Your task to perform on an android device: see sites visited before in the chrome app Image 0: 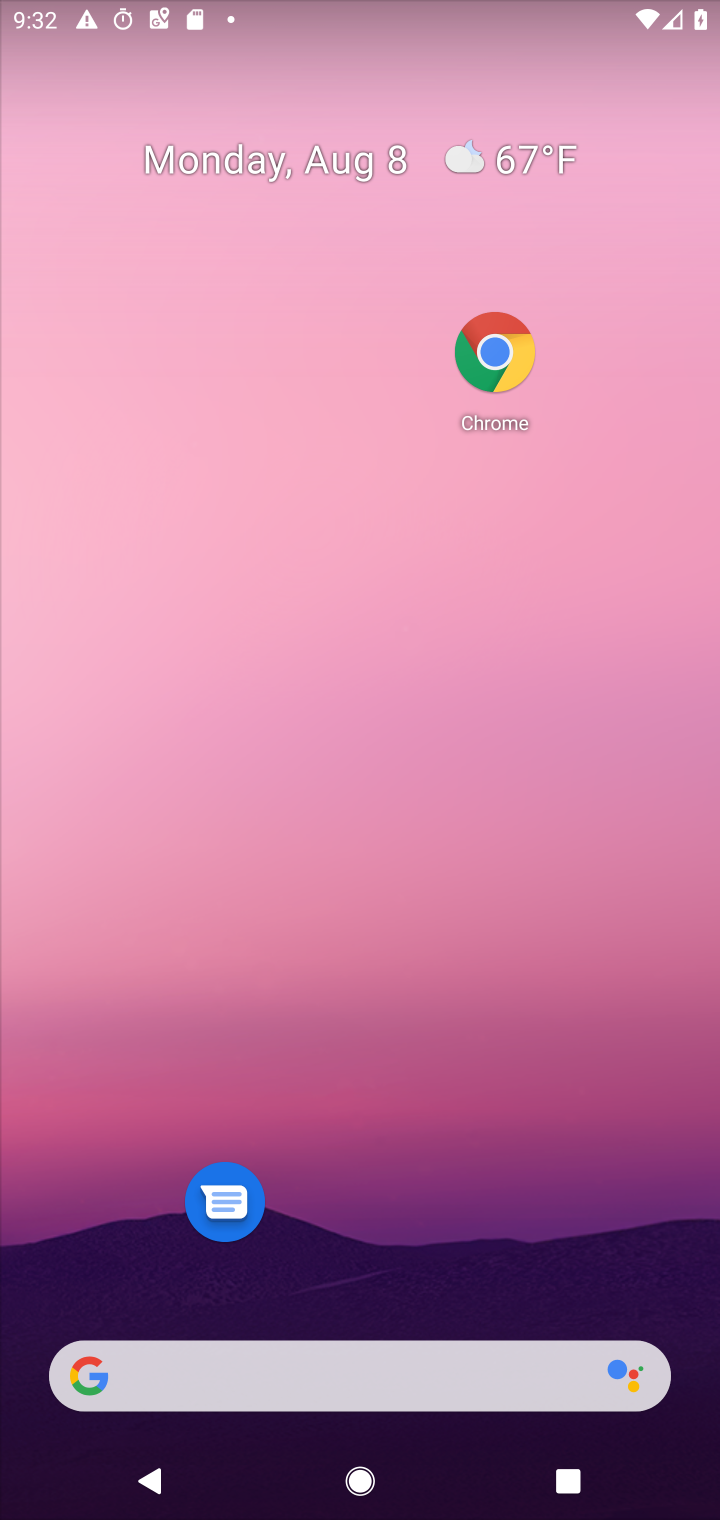
Step 0: drag from (355, 1077) to (273, 398)
Your task to perform on an android device: see sites visited before in the chrome app Image 1: 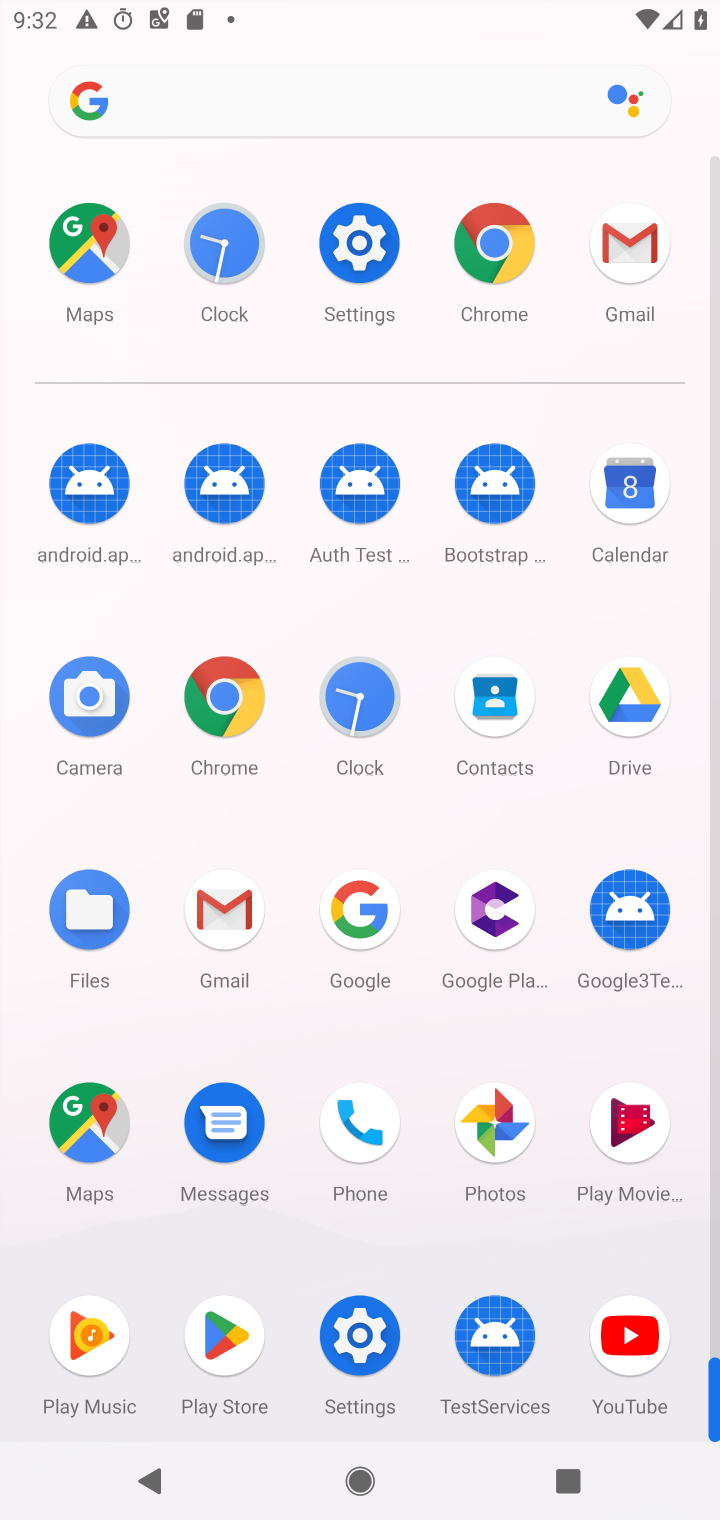
Step 1: click (532, 264)
Your task to perform on an android device: see sites visited before in the chrome app Image 2: 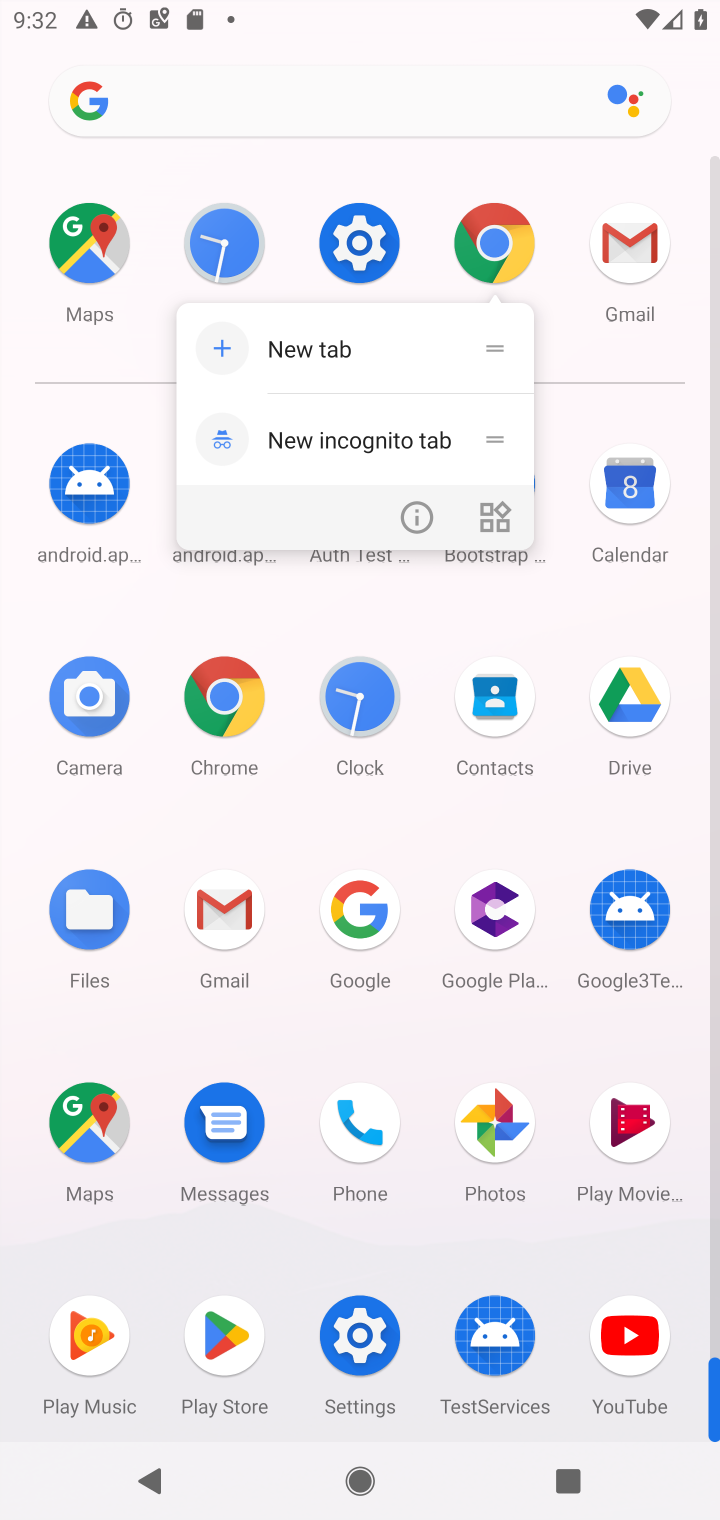
Step 2: click (517, 259)
Your task to perform on an android device: see sites visited before in the chrome app Image 3: 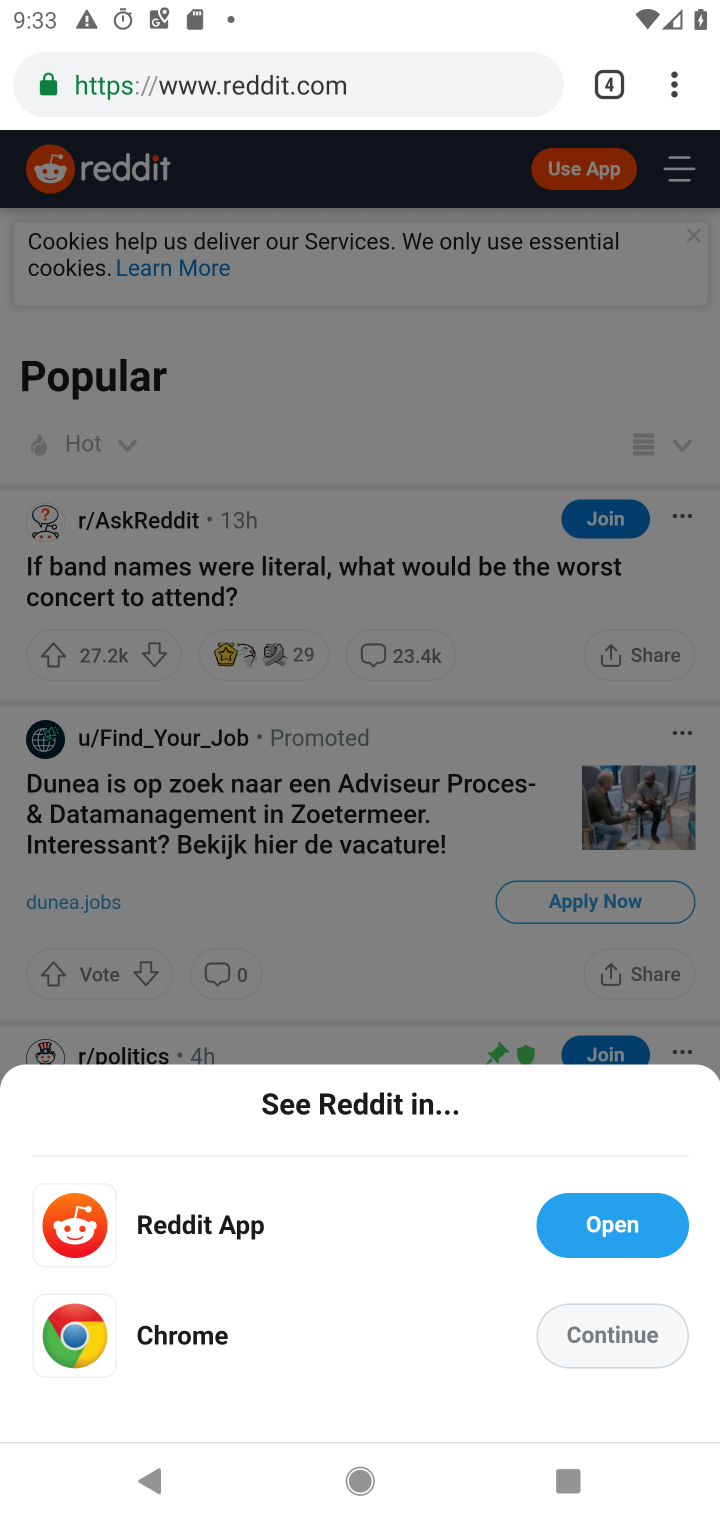
Step 3: click (685, 90)
Your task to perform on an android device: see sites visited before in the chrome app Image 4: 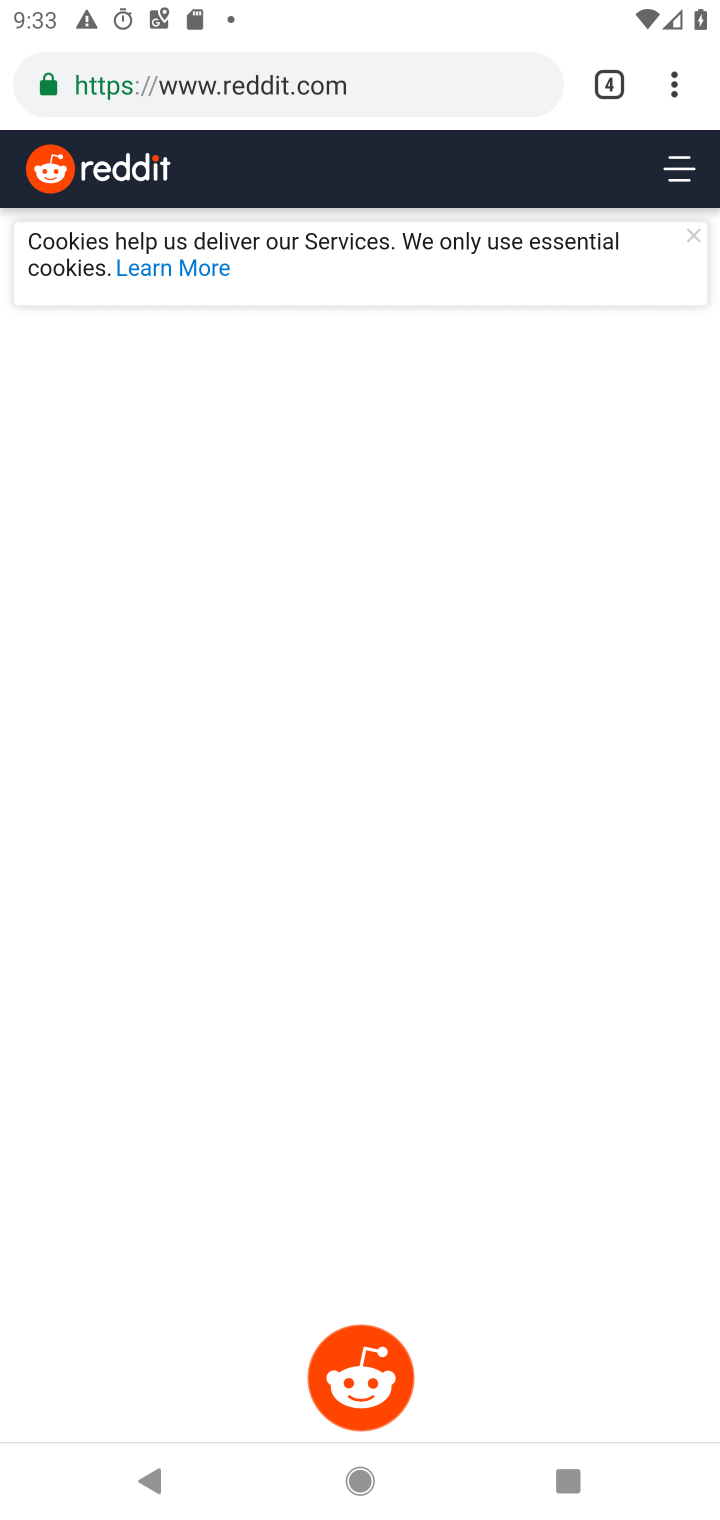
Step 4: click (672, 90)
Your task to perform on an android device: see sites visited before in the chrome app Image 5: 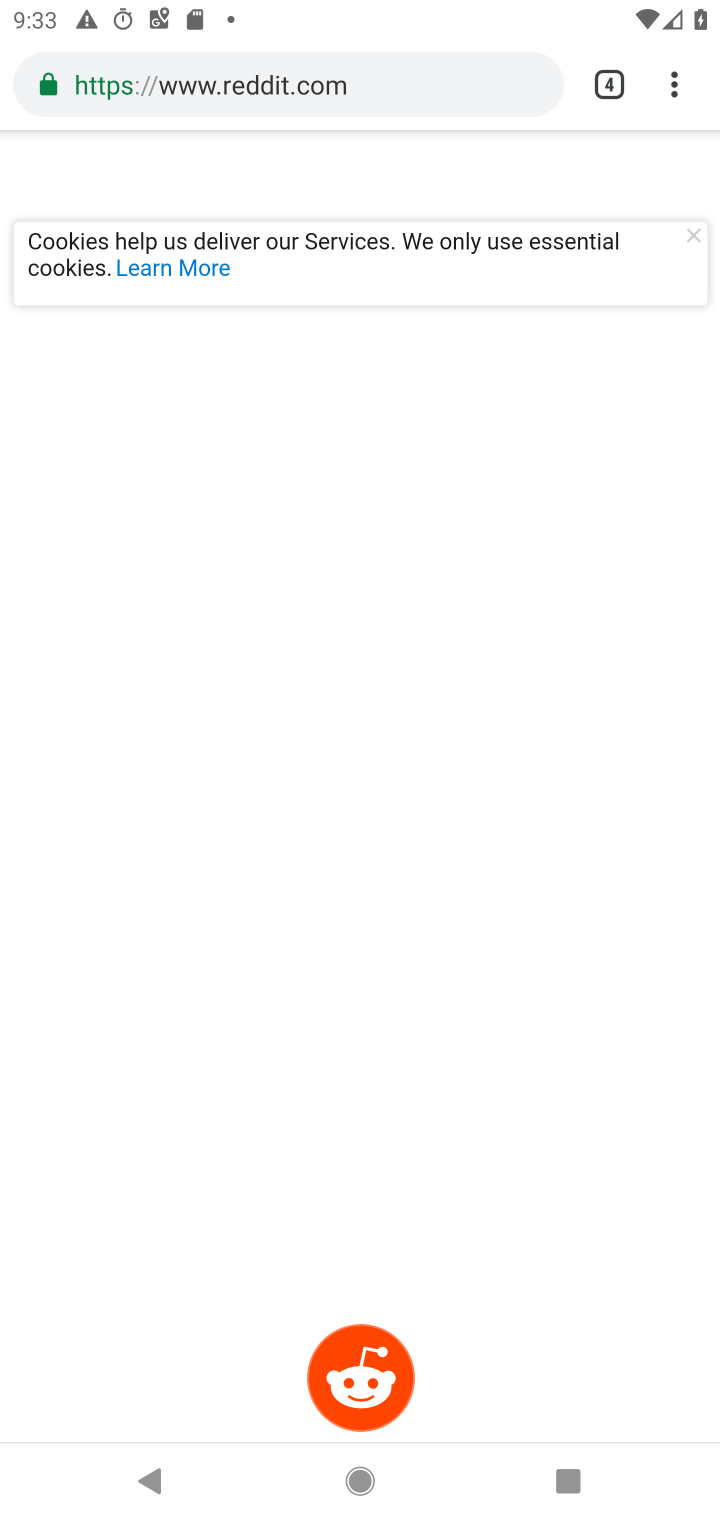
Step 5: click (673, 75)
Your task to perform on an android device: see sites visited before in the chrome app Image 6: 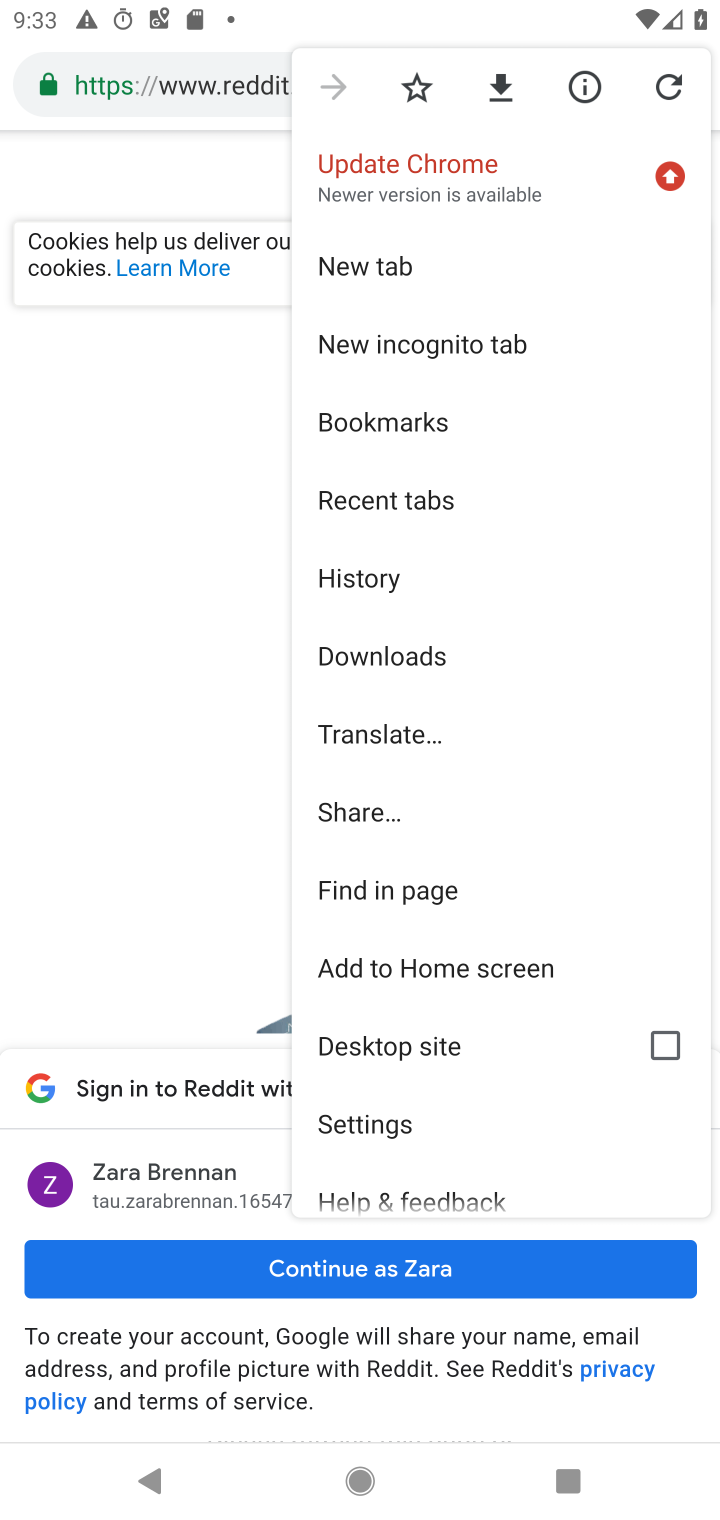
Step 6: click (372, 555)
Your task to perform on an android device: see sites visited before in the chrome app Image 7: 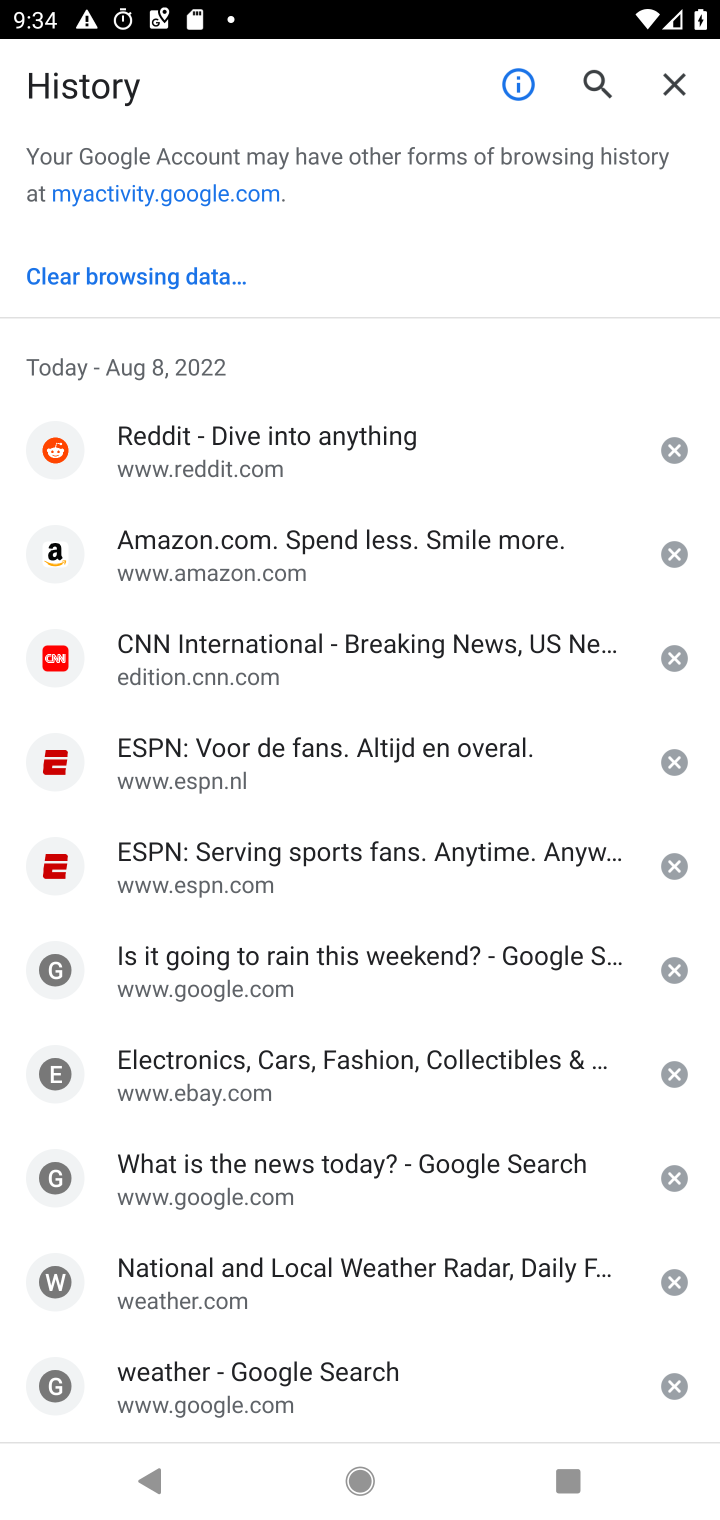
Step 7: task complete